Your task to perform on an android device: set an alarm Image 0: 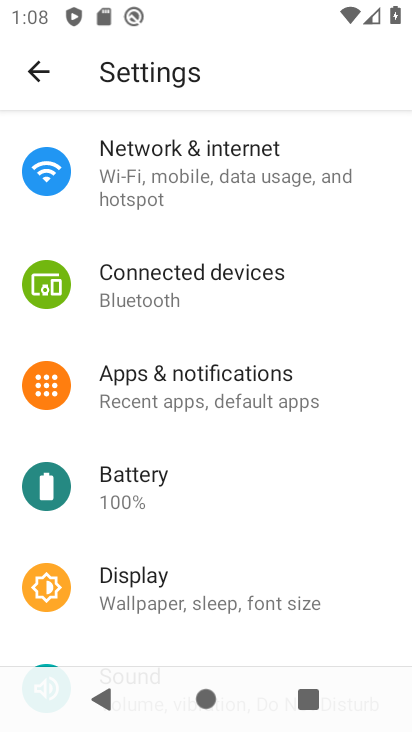
Step 0: press home button
Your task to perform on an android device: set an alarm Image 1: 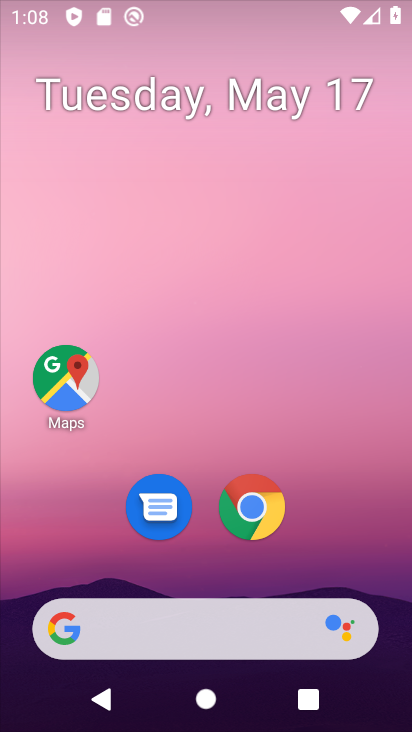
Step 1: drag from (236, 582) to (263, 235)
Your task to perform on an android device: set an alarm Image 2: 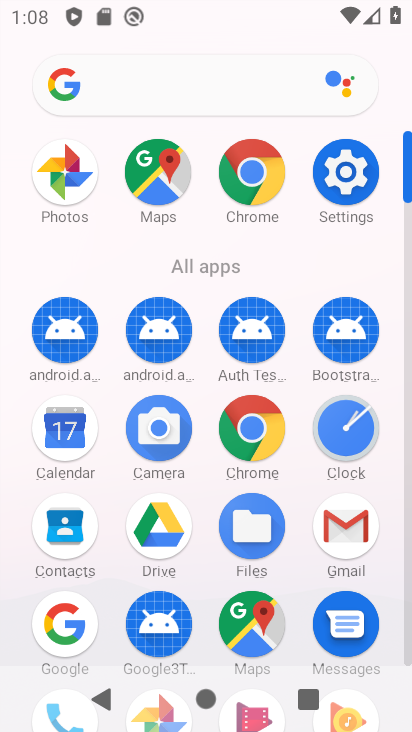
Step 2: click (342, 398)
Your task to perform on an android device: set an alarm Image 3: 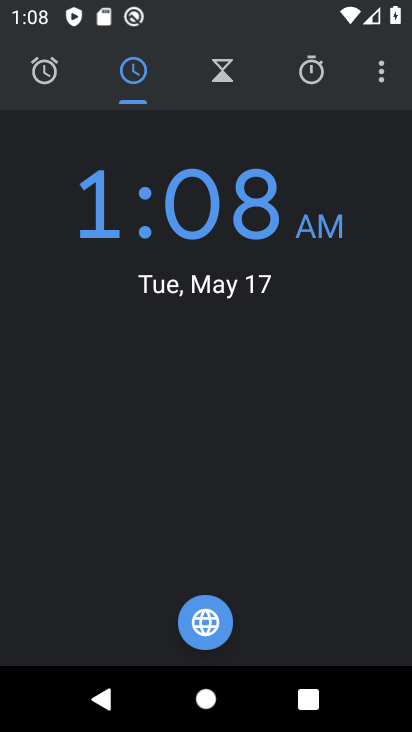
Step 3: click (49, 89)
Your task to perform on an android device: set an alarm Image 4: 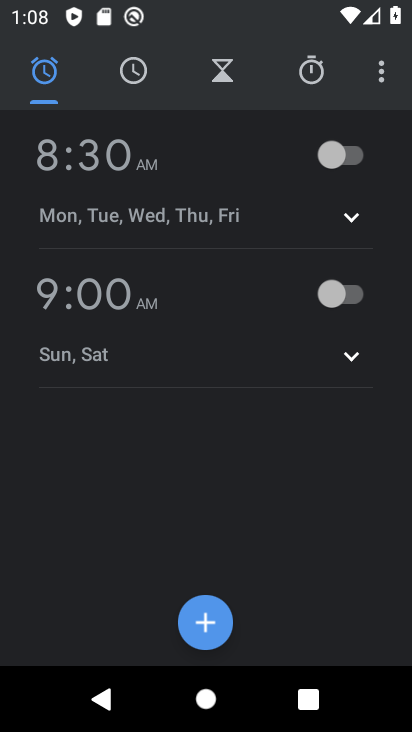
Step 4: click (336, 159)
Your task to perform on an android device: set an alarm Image 5: 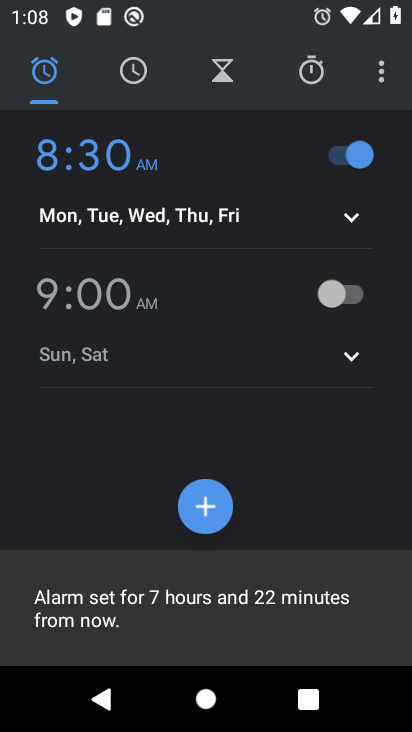
Step 5: task complete